Your task to perform on an android device: Open calendar and show me the second week of next month Image 0: 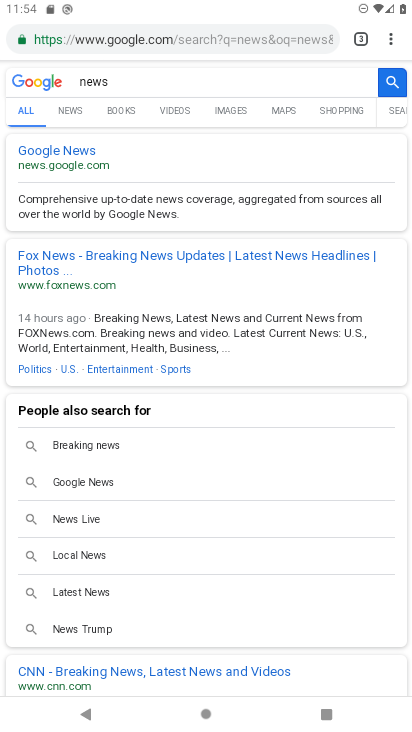
Step 0: press home button
Your task to perform on an android device: Open calendar and show me the second week of next month Image 1: 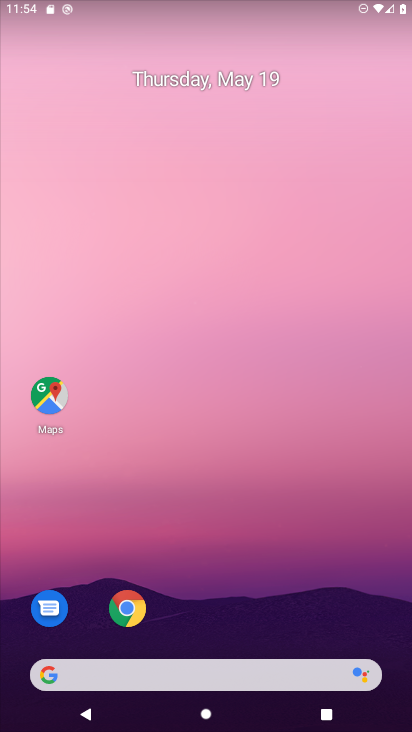
Step 1: drag from (283, 604) to (349, 8)
Your task to perform on an android device: Open calendar and show me the second week of next month Image 2: 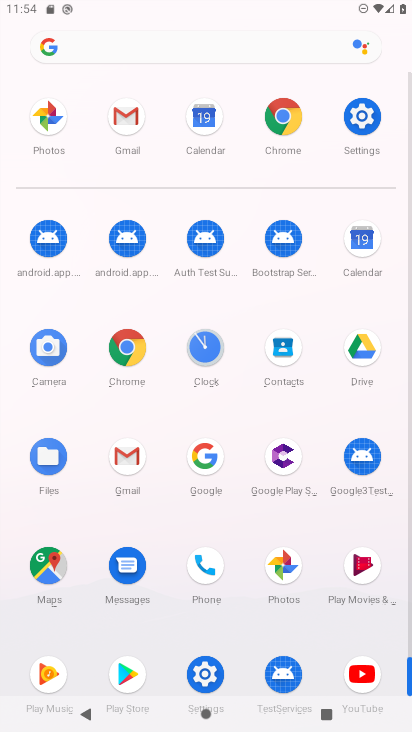
Step 2: click (335, 244)
Your task to perform on an android device: Open calendar and show me the second week of next month Image 3: 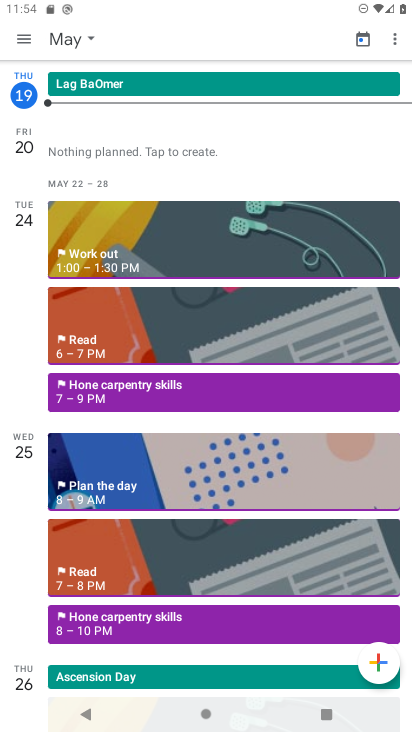
Step 3: click (85, 29)
Your task to perform on an android device: Open calendar and show me the second week of next month Image 4: 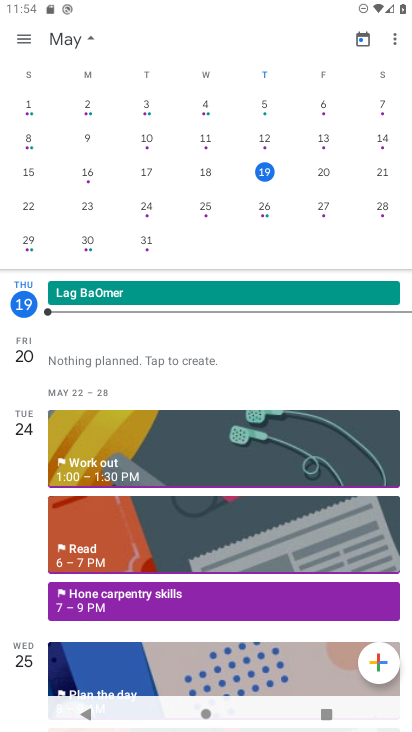
Step 4: drag from (398, 129) to (25, 6)
Your task to perform on an android device: Open calendar and show me the second week of next month Image 5: 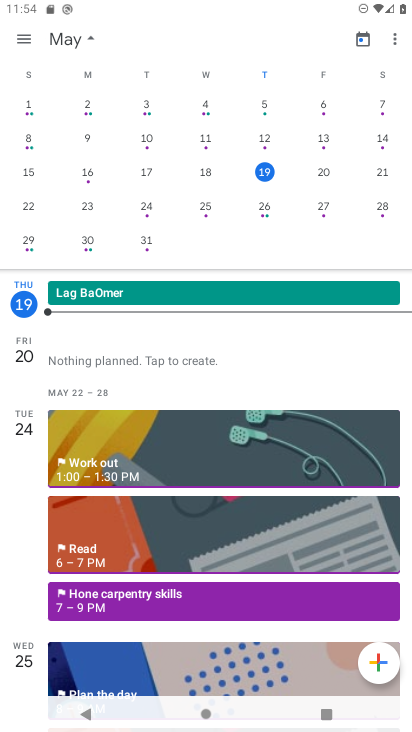
Step 5: drag from (394, 139) to (11, 145)
Your task to perform on an android device: Open calendar and show me the second week of next month Image 6: 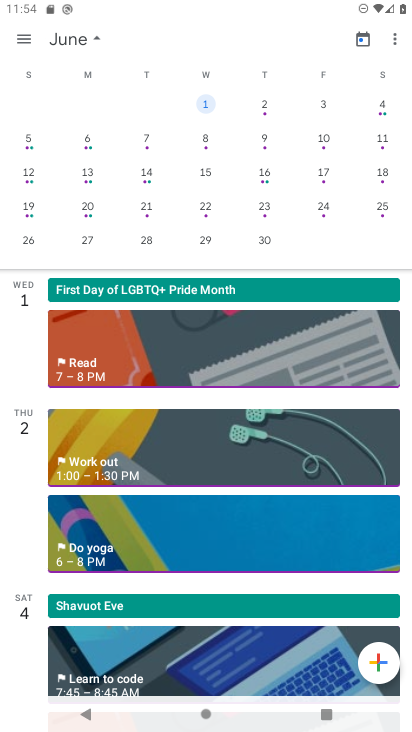
Step 6: click (200, 139)
Your task to perform on an android device: Open calendar and show me the second week of next month Image 7: 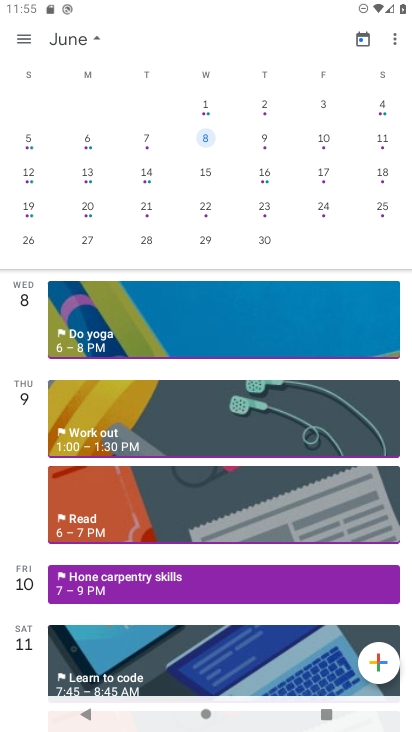
Step 7: task complete